Your task to perform on an android device: Go to CNN.com Image 0: 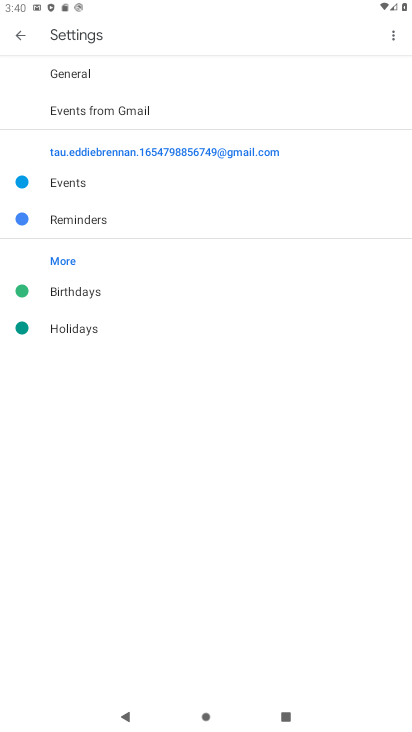
Step 0: press home button
Your task to perform on an android device: Go to CNN.com Image 1: 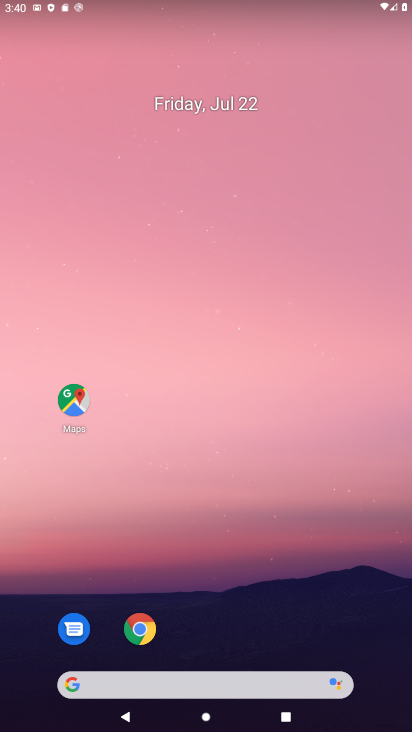
Step 1: drag from (287, 553) to (260, 84)
Your task to perform on an android device: Go to CNN.com Image 2: 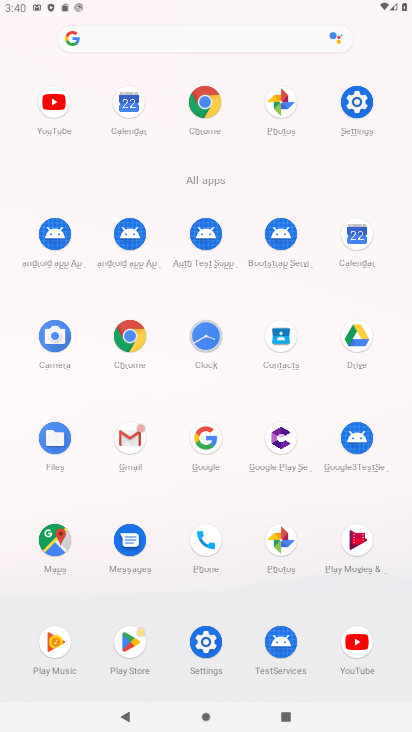
Step 2: click (213, 112)
Your task to perform on an android device: Go to CNN.com Image 3: 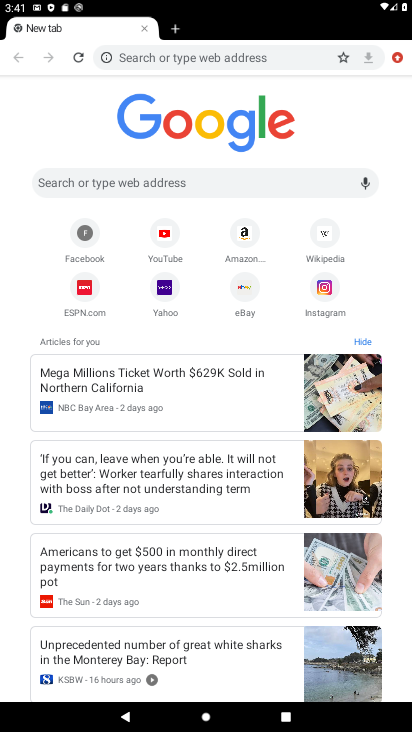
Step 3: click (210, 55)
Your task to perform on an android device: Go to CNN.com Image 4: 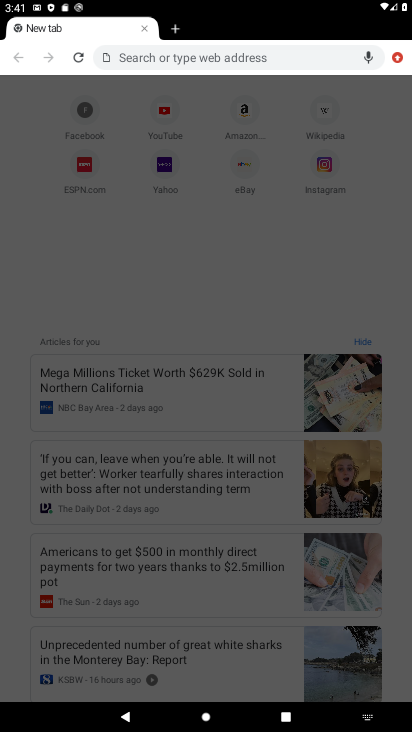
Step 4: type "cnn.com"
Your task to perform on an android device: Go to CNN.com Image 5: 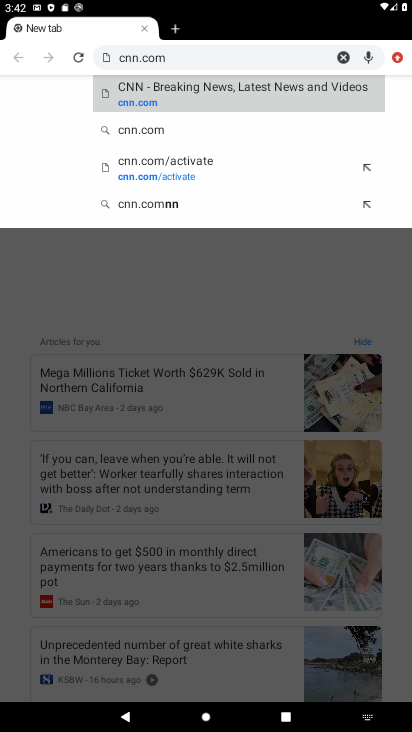
Step 5: click (187, 99)
Your task to perform on an android device: Go to CNN.com Image 6: 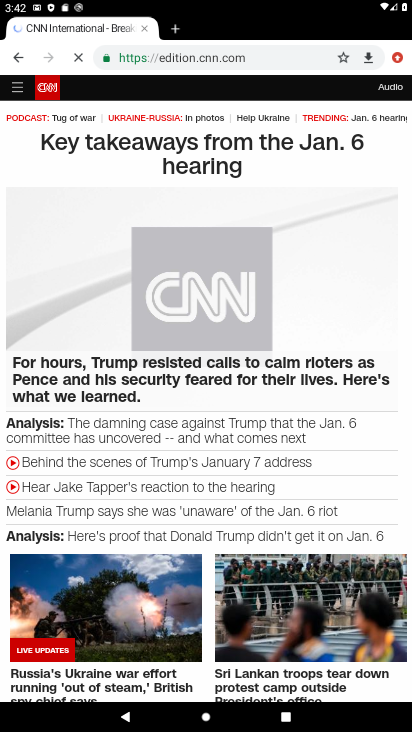
Step 6: task complete